Your task to perform on an android device: What's the weather going to be this weekend? Image 0: 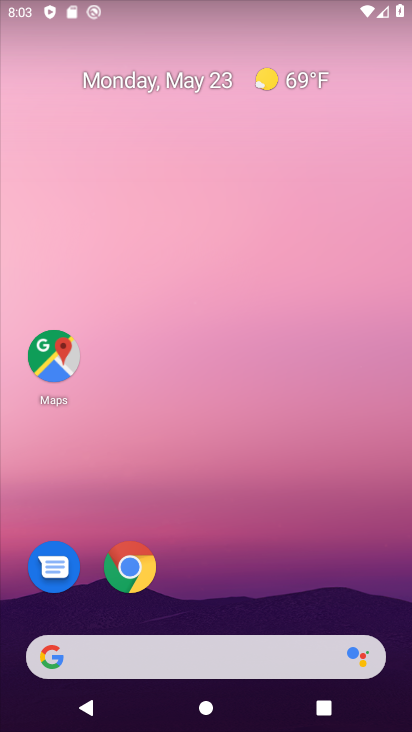
Step 0: click (301, 85)
Your task to perform on an android device: What's the weather going to be this weekend? Image 1: 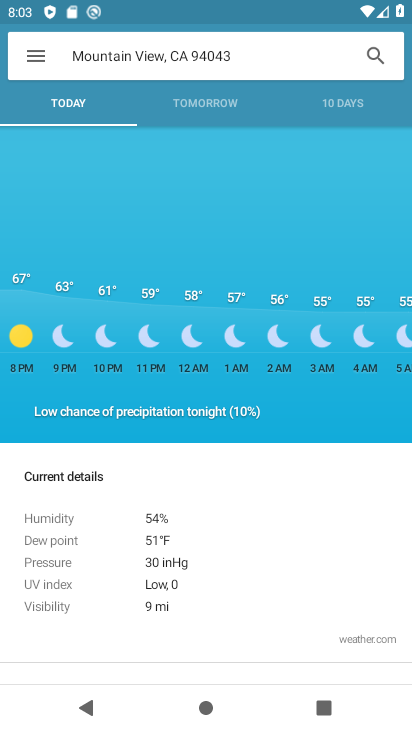
Step 1: click (359, 111)
Your task to perform on an android device: What's the weather going to be this weekend? Image 2: 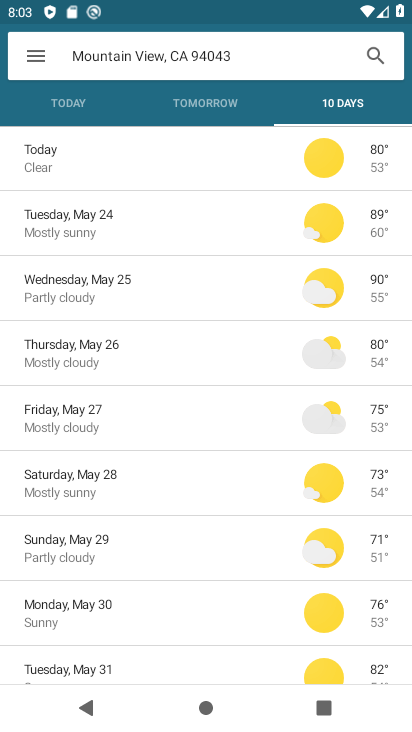
Step 2: task complete